Your task to perform on an android device: turn off location history Image 0: 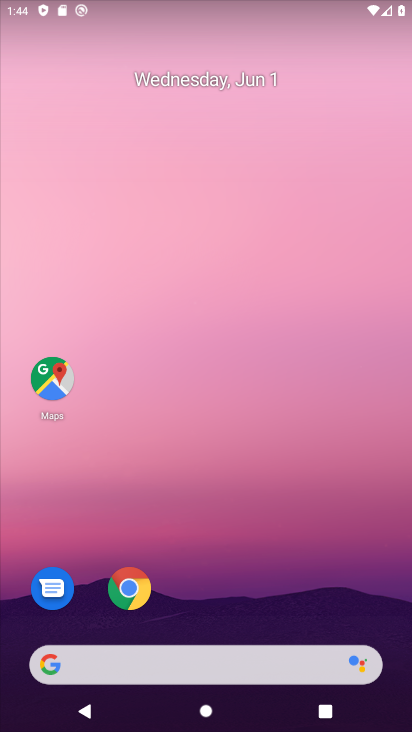
Step 0: drag from (208, 603) to (237, 189)
Your task to perform on an android device: turn off location history Image 1: 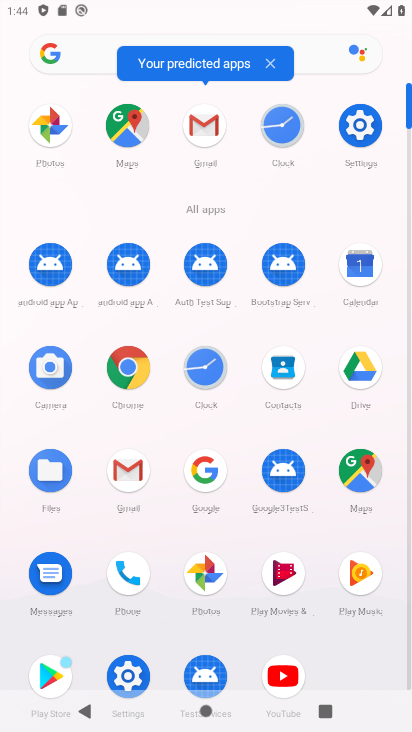
Step 1: click (349, 130)
Your task to perform on an android device: turn off location history Image 2: 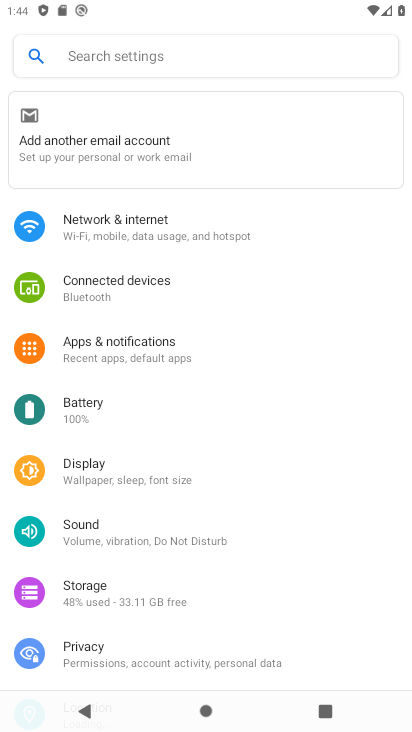
Step 2: drag from (153, 627) to (167, 214)
Your task to perform on an android device: turn off location history Image 3: 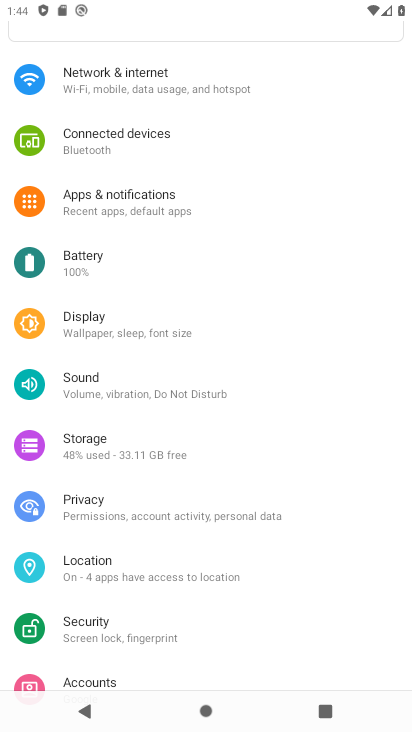
Step 3: click (91, 576)
Your task to perform on an android device: turn off location history Image 4: 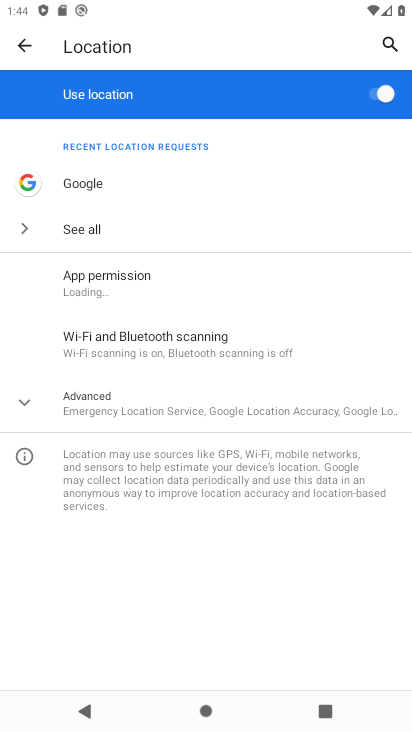
Step 4: click (123, 410)
Your task to perform on an android device: turn off location history Image 5: 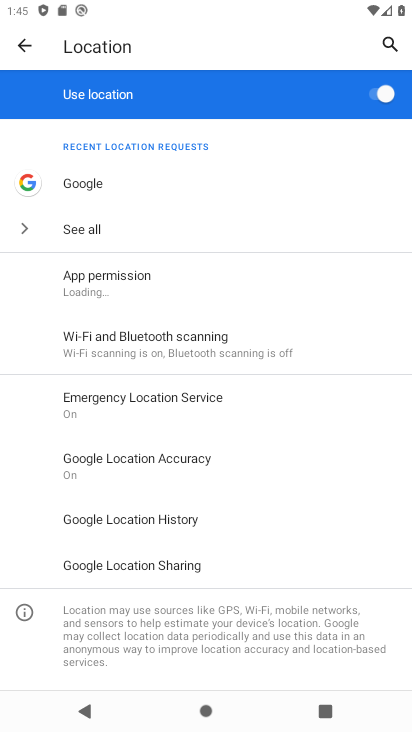
Step 5: click (145, 518)
Your task to perform on an android device: turn off location history Image 6: 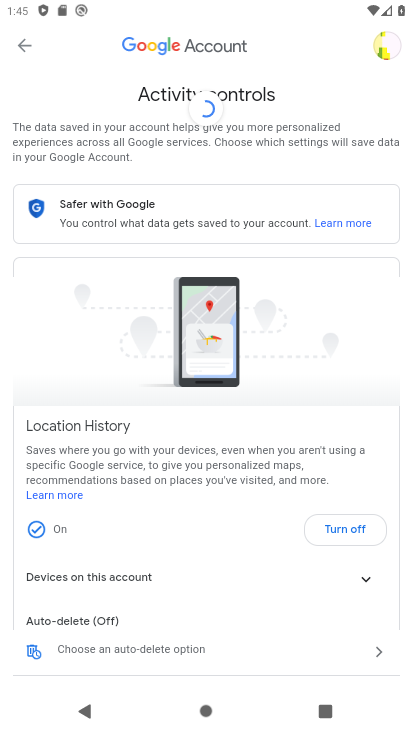
Step 6: click (346, 531)
Your task to perform on an android device: turn off location history Image 7: 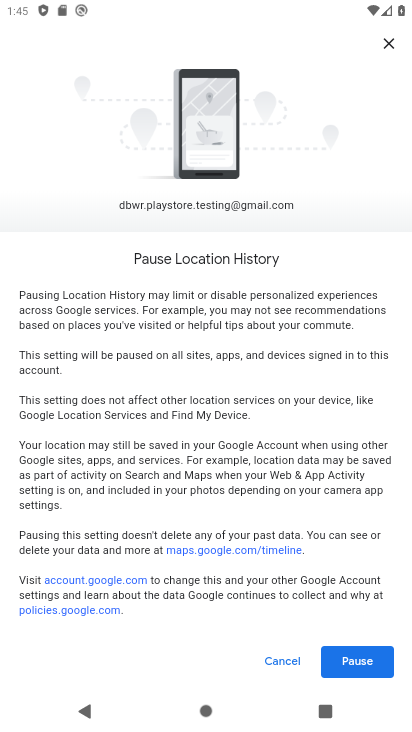
Step 7: click (355, 668)
Your task to perform on an android device: turn off location history Image 8: 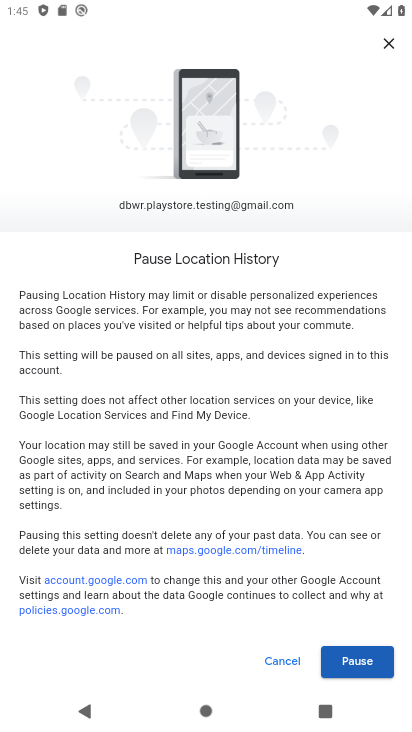
Step 8: click (357, 658)
Your task to perform on an android device: turn off location history Image 9: 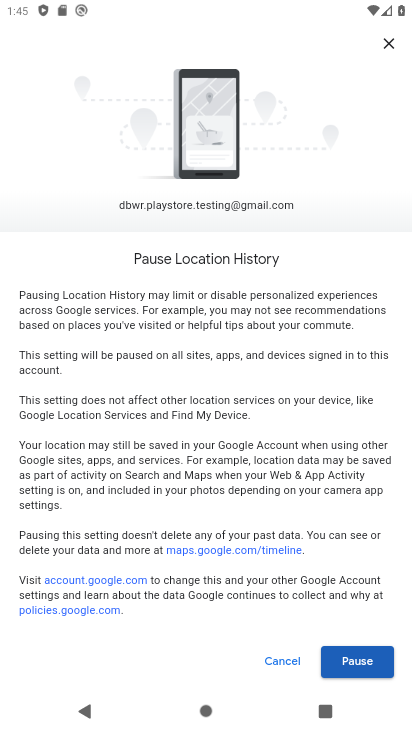
Step 9: click (359, 665)
Your task to perform on an android device: turn off location history Image 10: 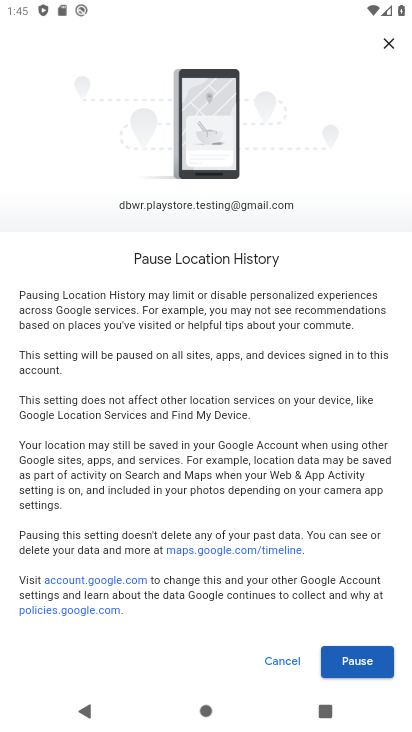
Step 10: drag from (328, 485) to (329, 269)
Your task to perform on an android device: turn off location history Image 11: 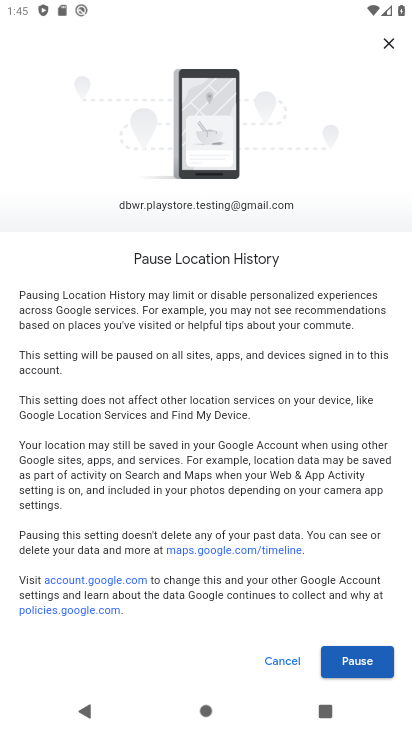
Step 11: click (367, 671)
Your task to perform on an android device: turn off location history Image 12: 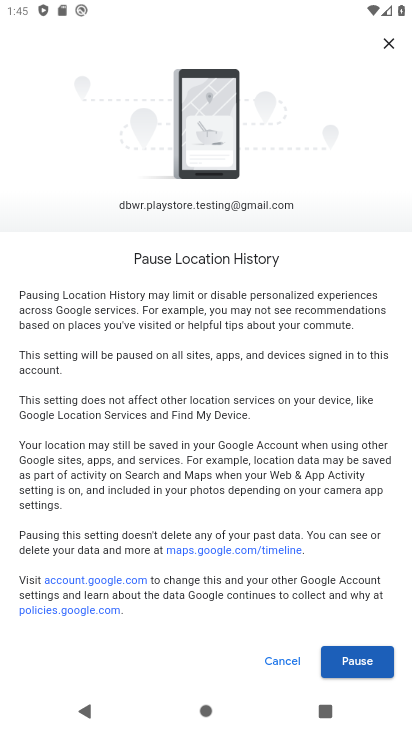
Step 12: task complete